Your task to perform on an android device: Turn off the flashlight Image 0: 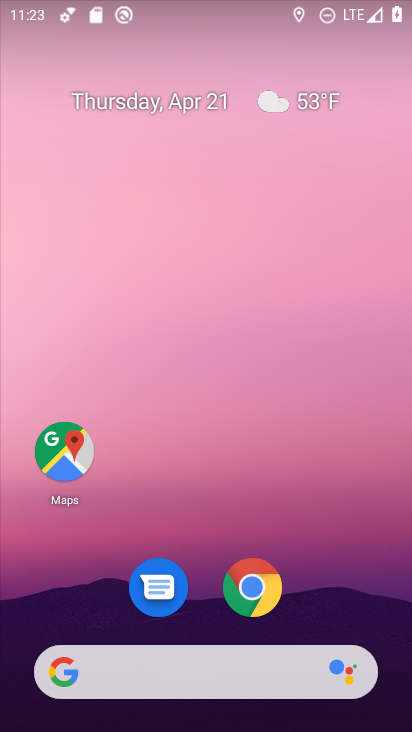
Step 0: drag from (119, 16) to (82, 584)
Your task to perform on an android device: Turn off the flashlight Image 1: 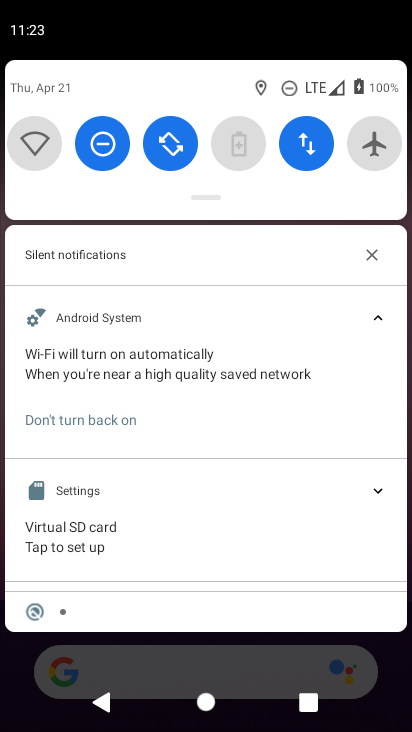
Step 1: task complete